Your task to perform on an android device: open sync settings in chrome Image 0: 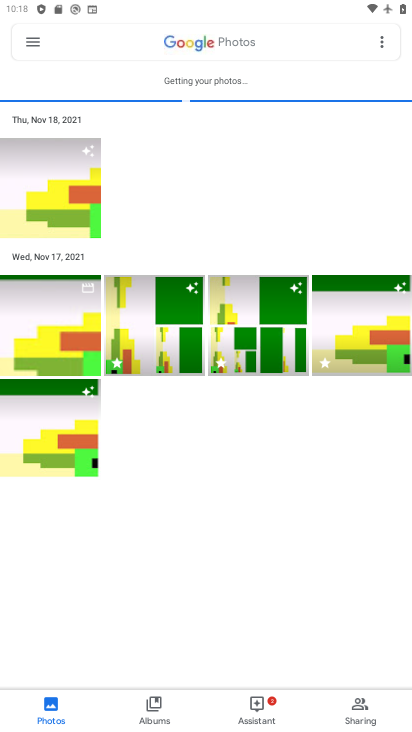
Step 0: press home button
Your task to perform on an android device: open sync settings in chrome Image 1: 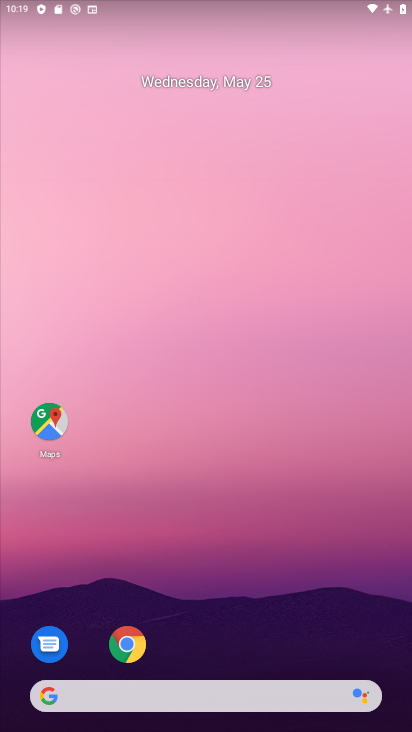
Step 1: click (132, 649)
Your task to perform on an android device: open sync settings in chrome Image 2: 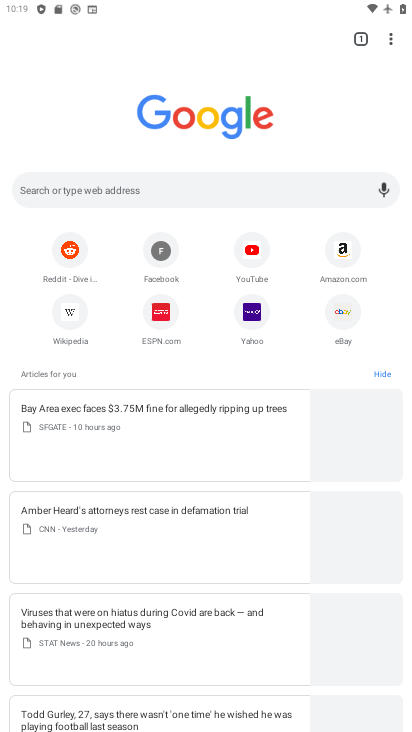
Step 2: click (386, 40)
Your task to perform on an android device: open sync settings in chrome Image 3: 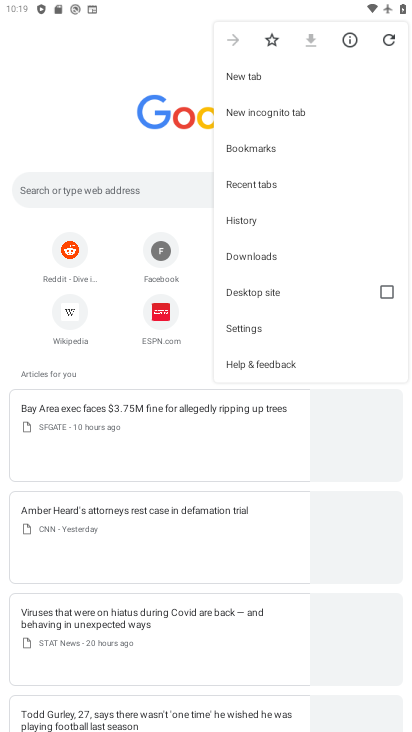
Step 3: click (273, 332)
Your task to perform on an android device: open sync settings in chrome Image 4: 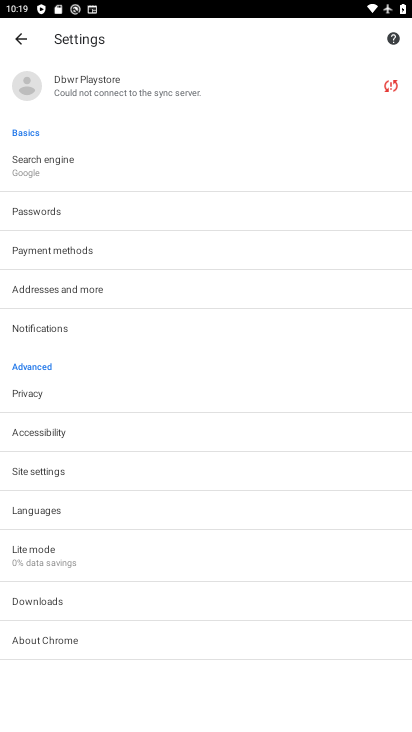
Step 4: click (40, 468)
Your task to perform on an android device: open sync settings in chrome Image 5: 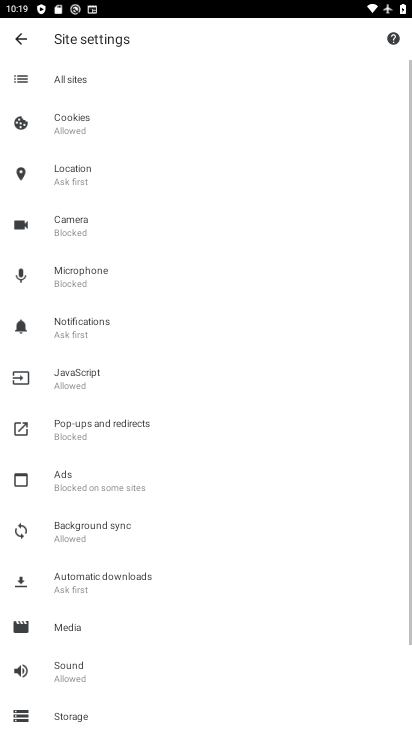
Step 5: click (118, 532)
Your task to perform on an android device: open sync settings in chrome Image 6: 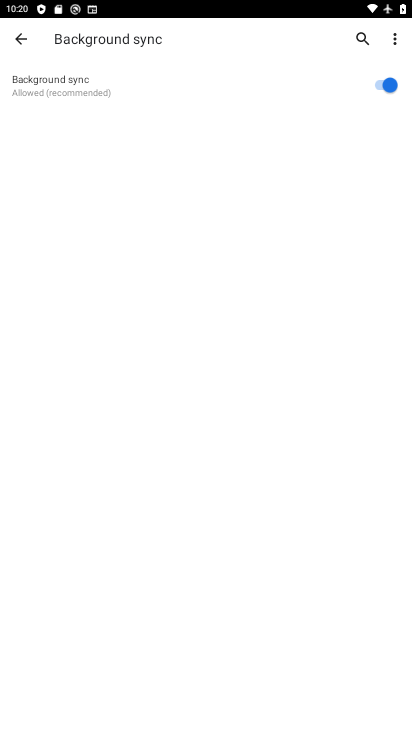
Step 6: task complete